Your task to perform on an android device: toggle notifications settings in the gmail app Image 0: 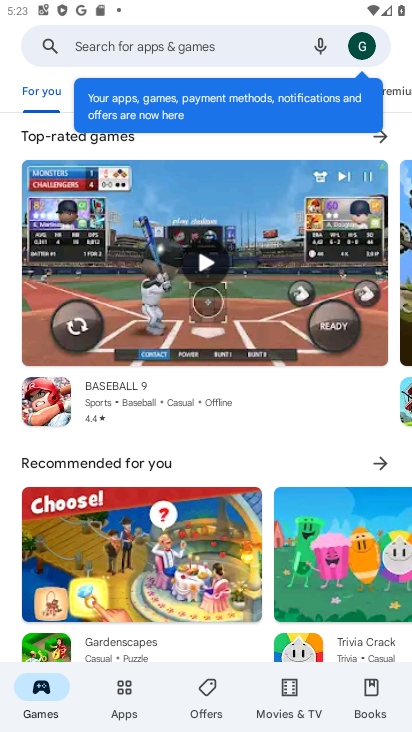
Step 0: press home button
Your task to perform on an android device: toggle notifications settings in the gmail app Image 1: 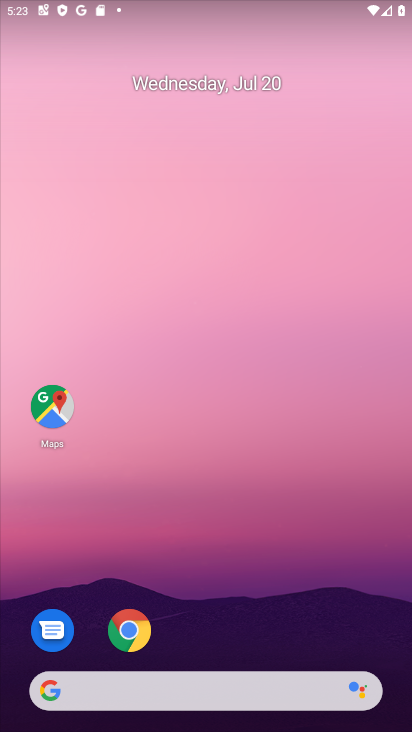
Step 1: drag from (217, 690) to (318, 7)
Your task to perform on an android device: toggle notifications settings in the gmail app Image 2: 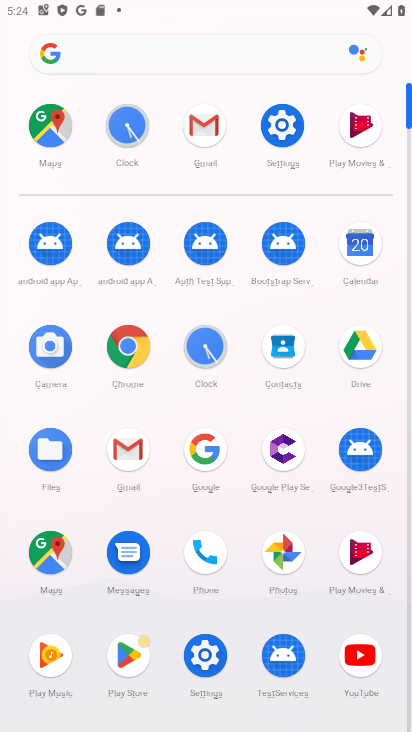
Step 2: click (204, 122)
Your task to perform on an android device: toggle notifications settings in the gmail app Image 3: 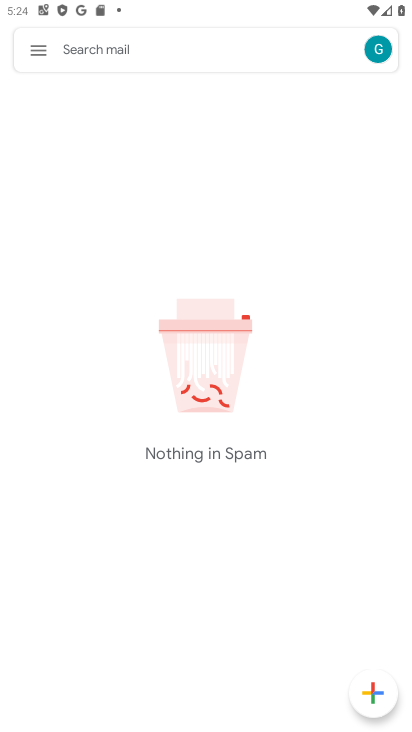
Step 3: click (37, 54)
Your task to perform on an android device: toggle notifications settings in the gmail app Image 4: 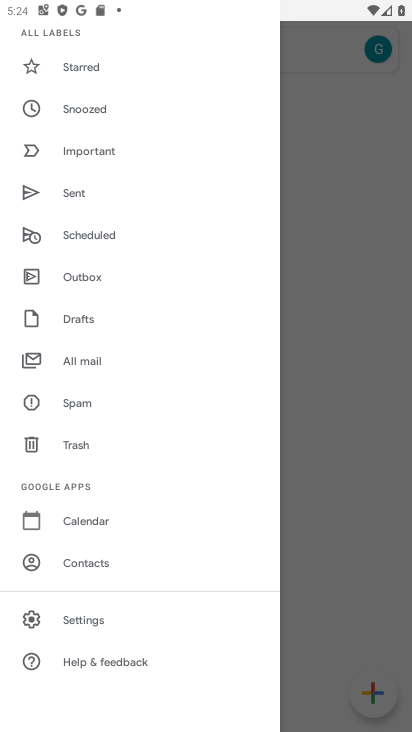
Step 4: click (88, 619)
Your task to perform on an android device: toggle notifications settings in the gmail app Image 5: 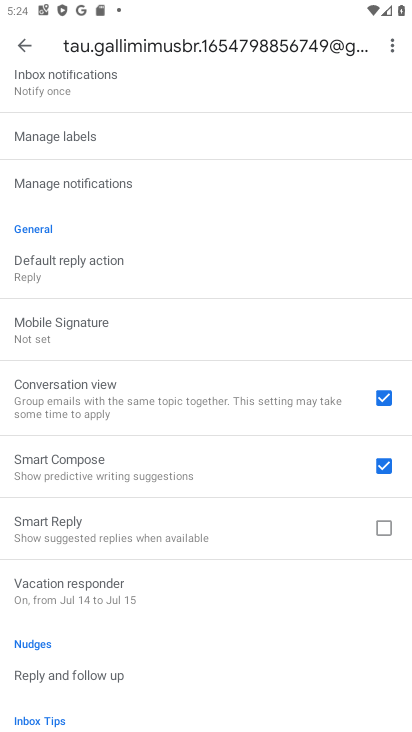
Step 5: click (82, 186)
Your task to perform on an android device: toggle notifications settings in the gmail app Image 6: 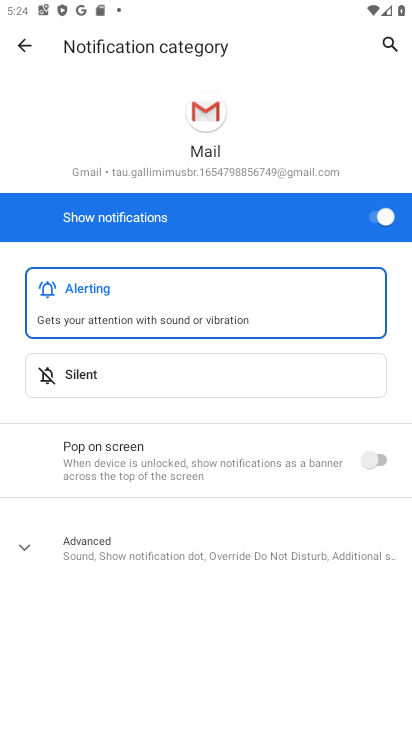
Step 6: click (381, 223)
Your task to perform on an android device: toggle notifications settings in the gmail app Image 7: 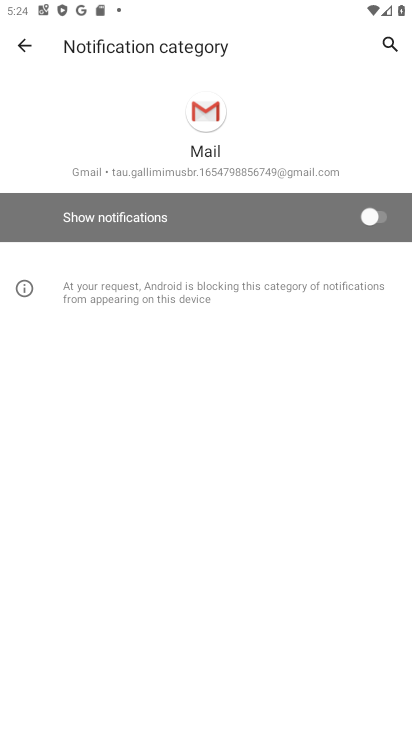
Step 7: task complete